Your task to perform on an android device: toggle airplane mode Image 0: 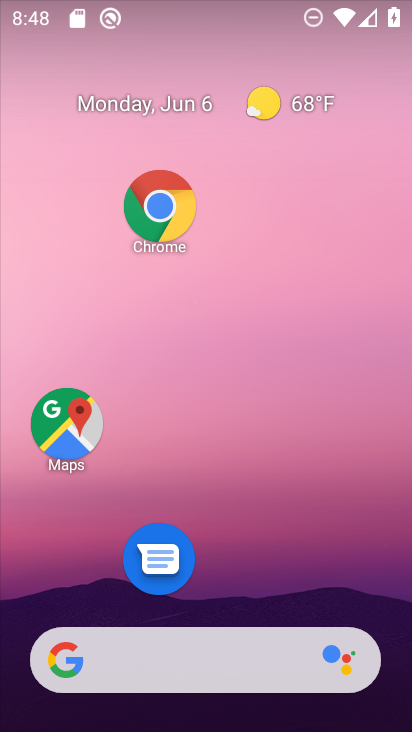
Step 0: drag from (257, 720) to (181, 272)
Your task to perform on an android device: toggle airplane mode Image 1: 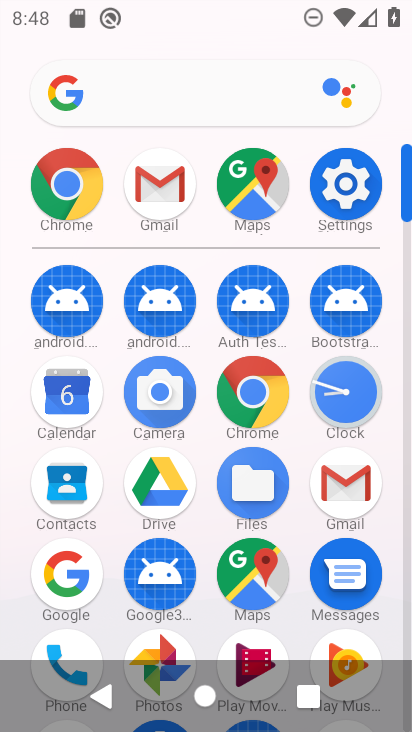
Step 1: click (333, 181)
Your task to perform on an android device: toggle airplane mode Image 2: 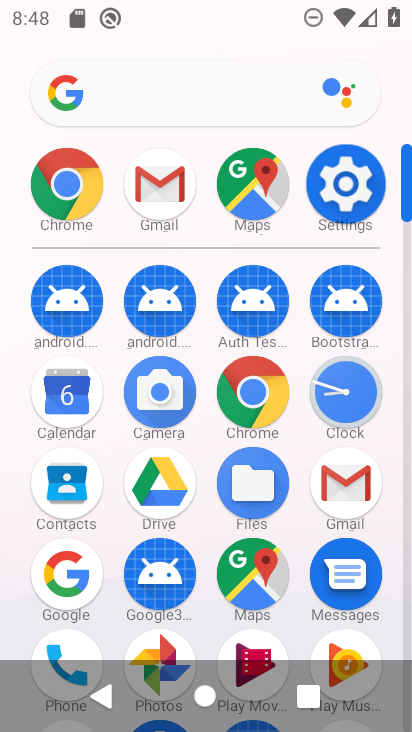
Step 2: click (333, 179)
Your task to perform on an android device: toggle airplane mode Image 3: 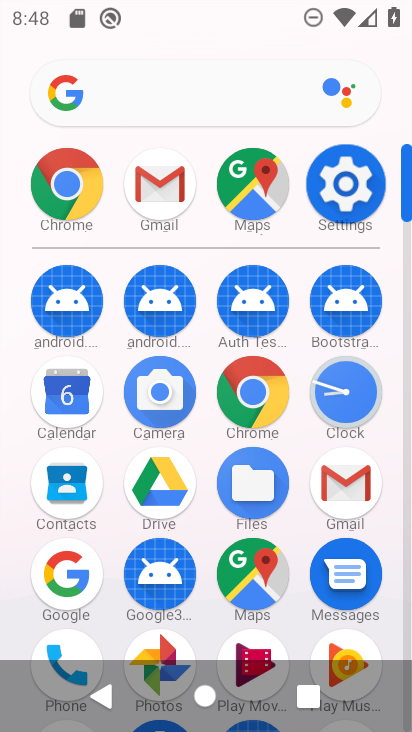
Step 3: click (333, 179)
Your task to perform on an android device: toggle airplane mode Image 4: 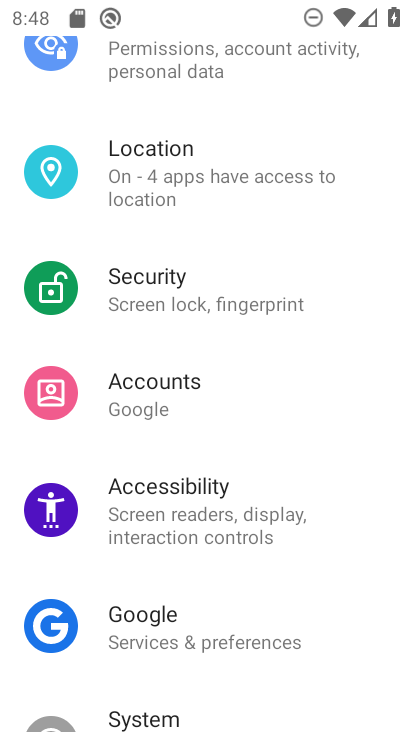
Step 4: drag from (195, 177) to (208, 442)
Your task to perform on an android device: toggle airplane mode Image 5: 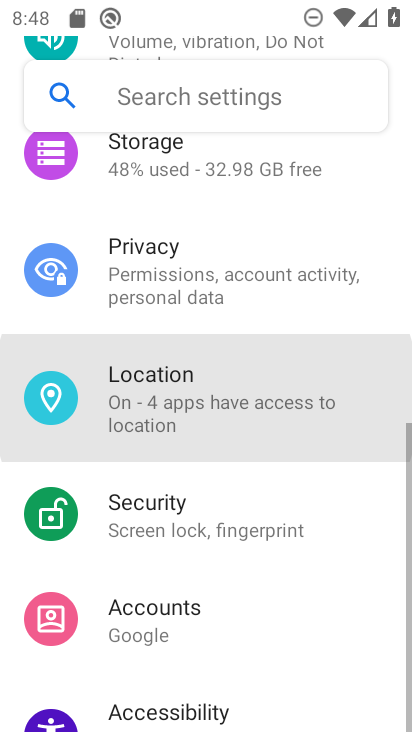
Step 5: drag from (233, 198) to (229, 518)
Your task to perform on an android device: toggle airplane mode Image 6: 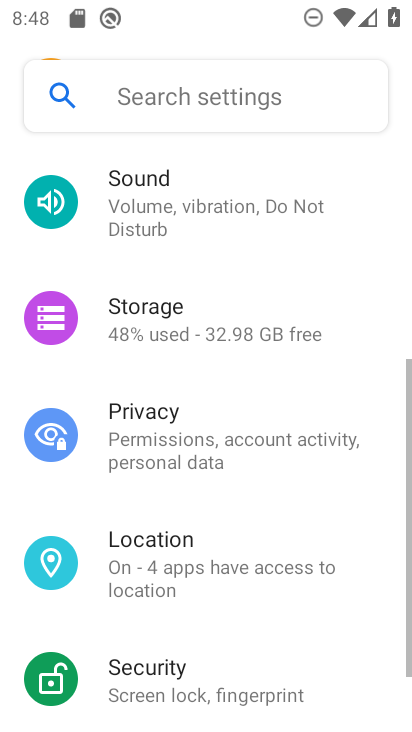
Step 6: drag from (231, 284) to (199, 637)
Your task to perform on an android device: toggle airplane mode Image 7: 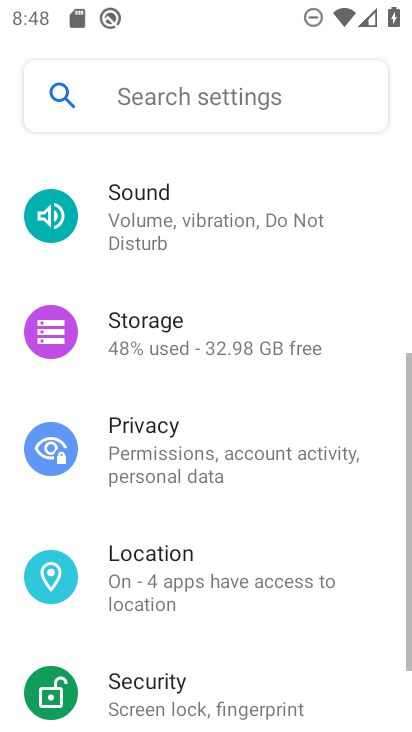
Step 7: drag from (178, 268) to (139, 505)
Your task to perform on an android device: toggle airplane mode Image 8: 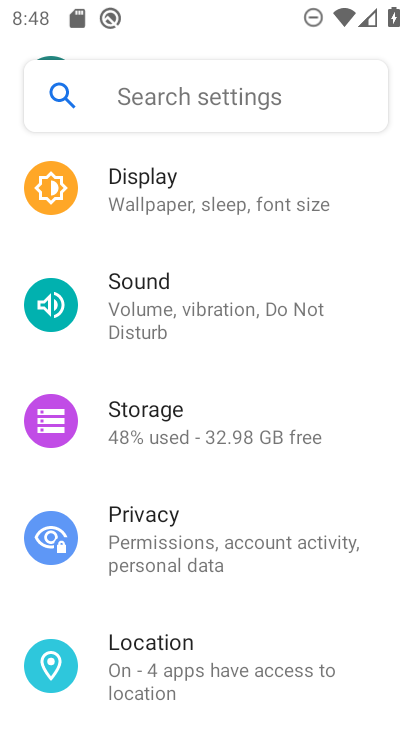
Step 8: drag from (169, 326) to (152, 695)
Your task to perform on an android device: toggle airplane mode Image 9: 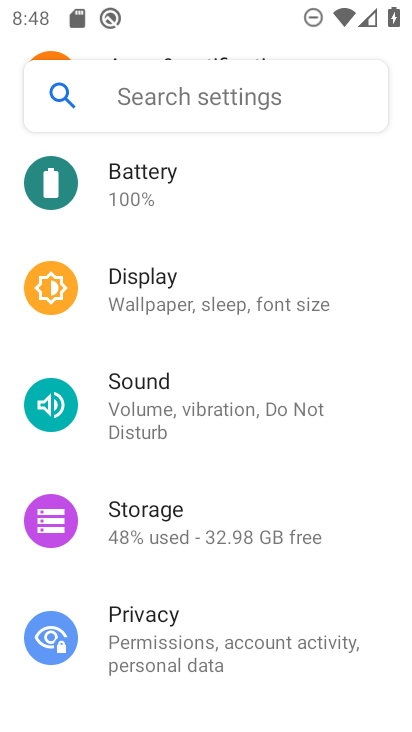
Step 9: drag from (175, 227) to (198, 597)
Your task to perform on an android device: toggle airplane mode Image 10: 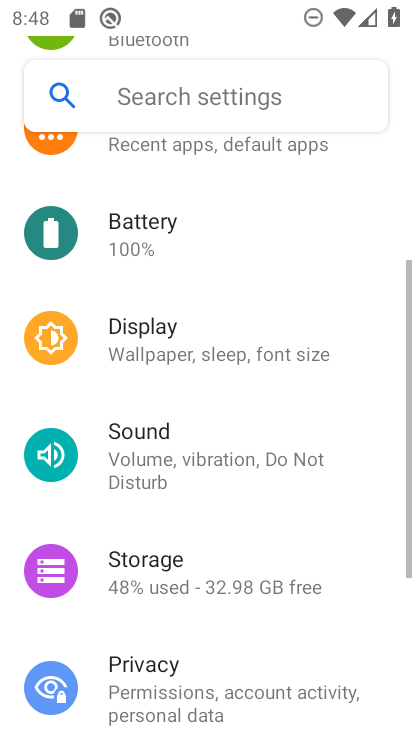
Step 10: click (181, 525)
Your task to perform on an android device: toggle airplane mode Image 11: 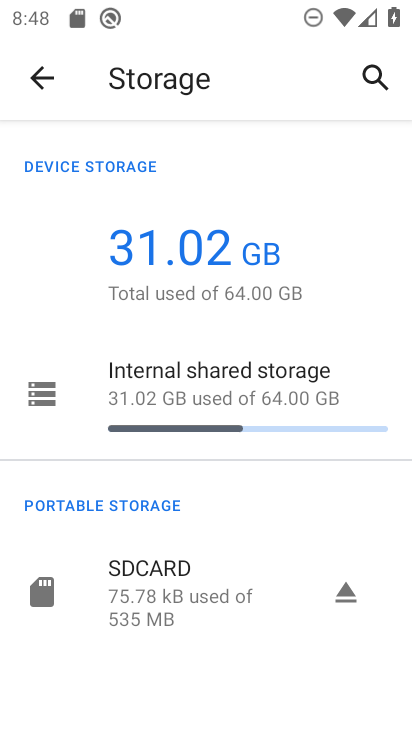
Step 11: click (56, 79)
Your task to perform on an android device: toggle airplane mode Image 12: 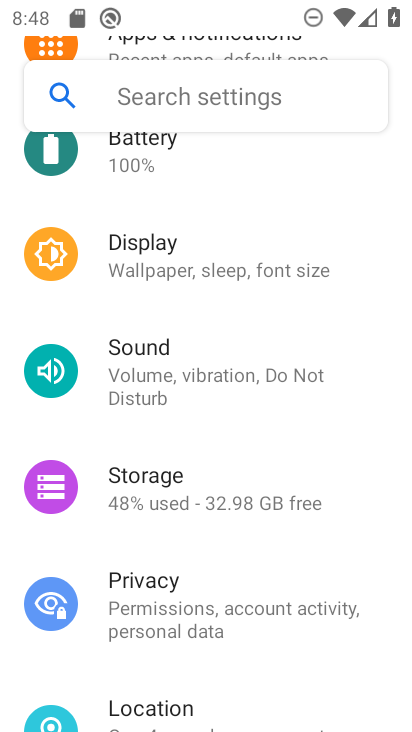
Step 12: drag from (184, 328) to (230, 713)
Your task to perform on an android device: toggle airplane mode Image 13: 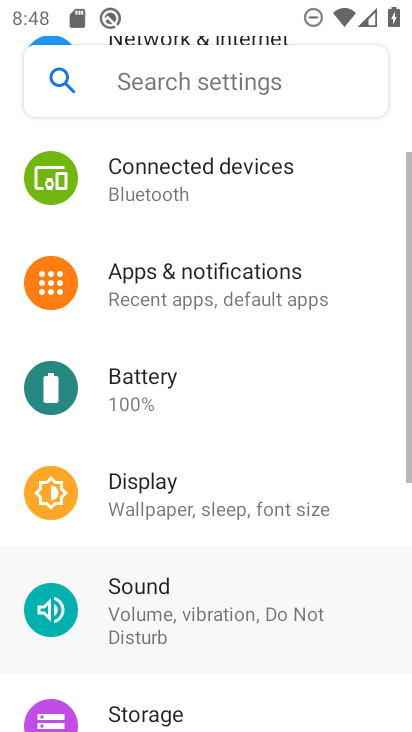
Step 13: drag from (212, 251) to (212, 544)
Your task to perform on an android device: toggle airplane mode Image 14: 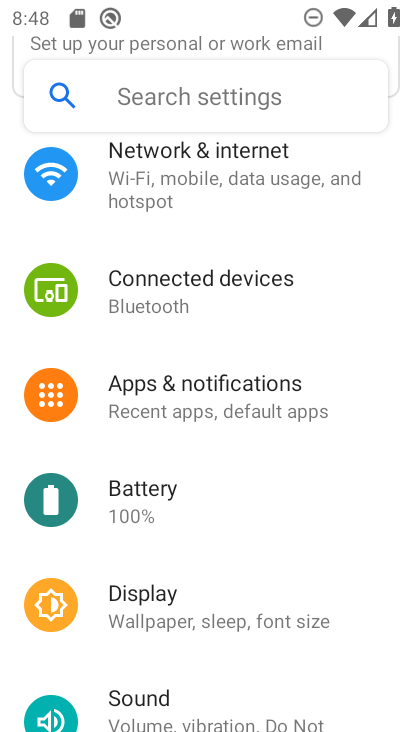
Step 14: click (189, 167)
Your task to perform on an android device: toggle airplane mode Image 15: 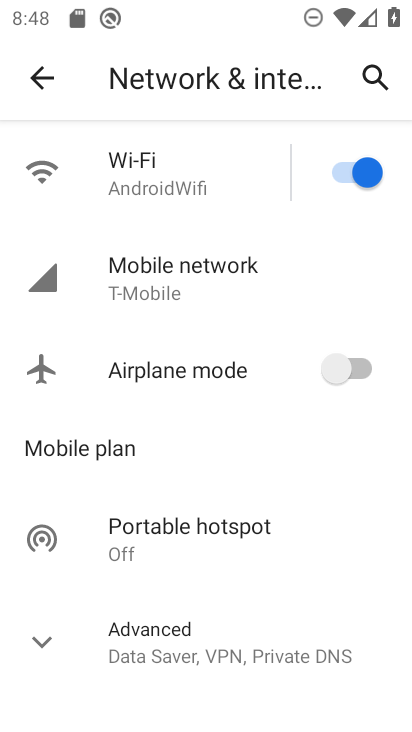
Step 15: click (335, 365)
Your task to perform on an android device: toggle airplane mode Image 16: 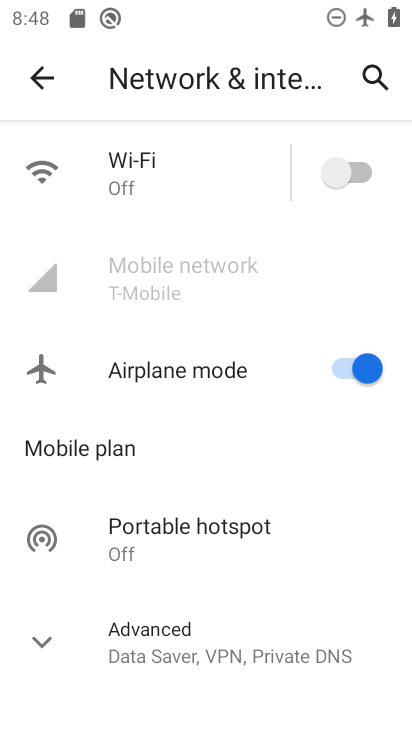
Step 16: task complete